Your task to perform on an android device: What's on my calendar tomorrow? Image 0: 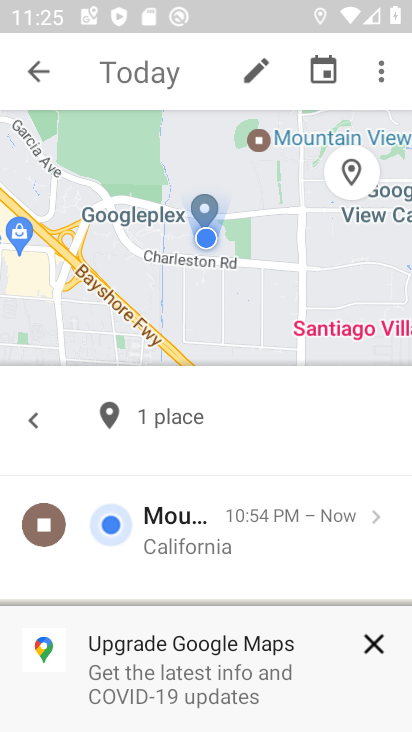
Step 0: press home button
Your task to perform on an android device: What's on my calendar tomorrow? Image 1: 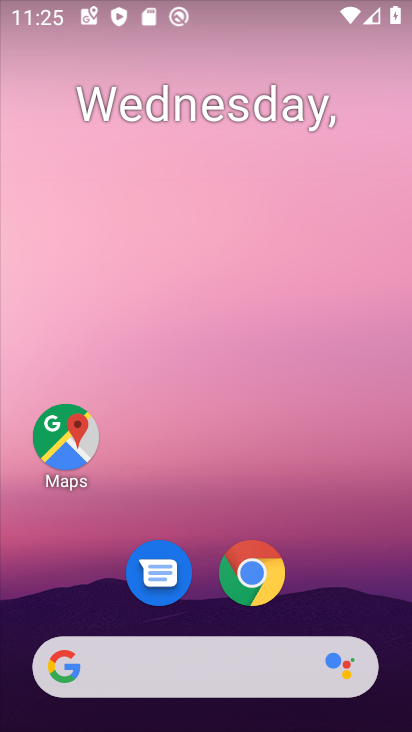
Step 1: drag from (214, 641) to (228, 194)
Your task to perform on an android device: What's on my calendar tomorrow? Image 2: 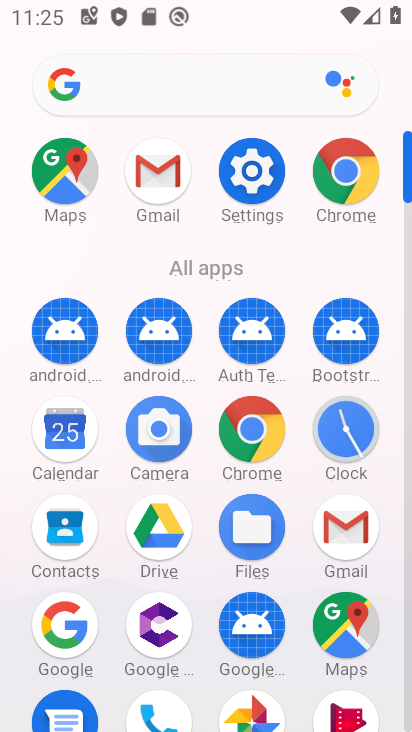
Step 2: click (75, 427)
Your task to perform on an android device: What's on my calendar tomorrow? Image 3: 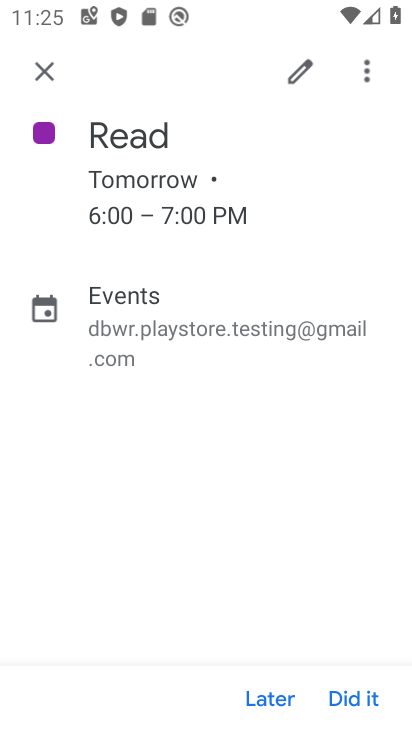
Step 3: click (47, 66)
Your task to perform on an android device: What's on my calendar tomorrow? Image 4: 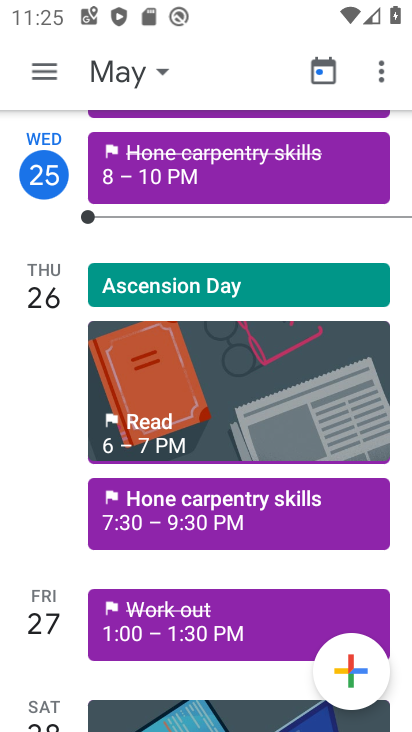
Step 4: click (121, 81)
Your task to perform on an android device: What's on my calendar tomorrow? Image 5: 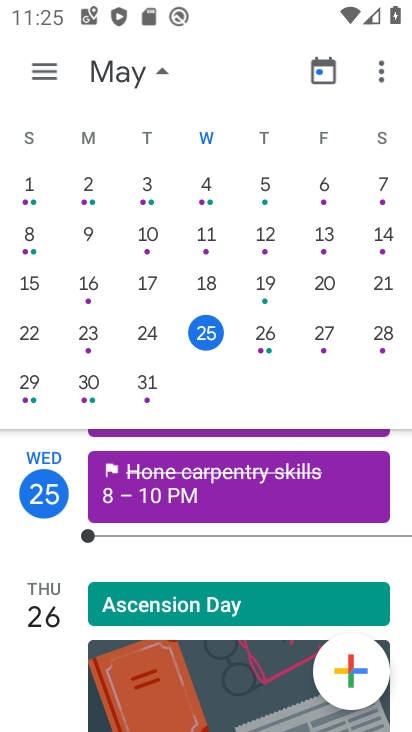
Step 5: click (268, 340)
Your task to perform on an android device: What's on my calendar tomorrow? Image 6: 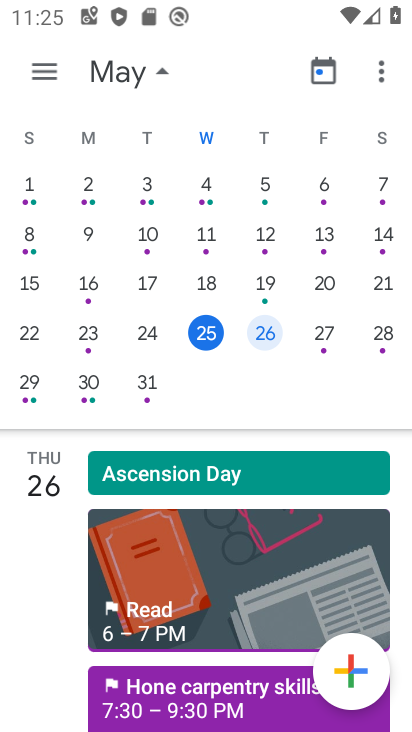
Step 6: click (162, 462)
Your task to perform on an android device: What's on my calendar tomorrow? Image 7: 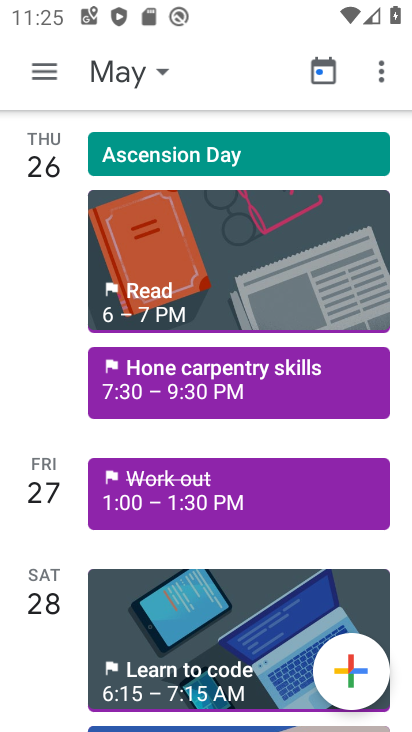
Step 7: task complete